Your task to perform on an android device: turn on improve location accuracy Image 0: 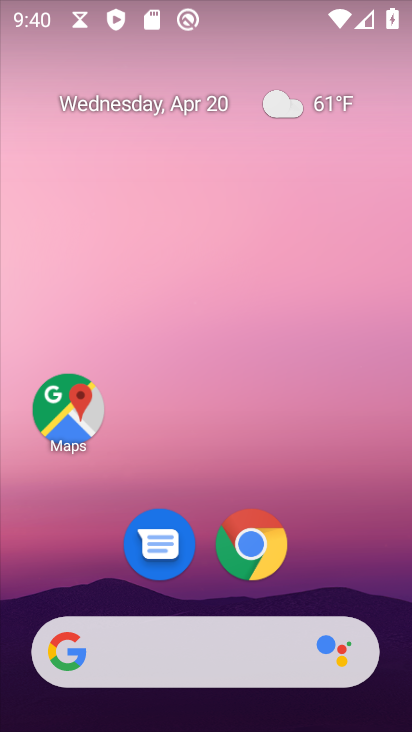
Step 0: drag from (164, 646) to (296, 107)
Your task to perform on an android device: turn on improve location accuracy Image 1: 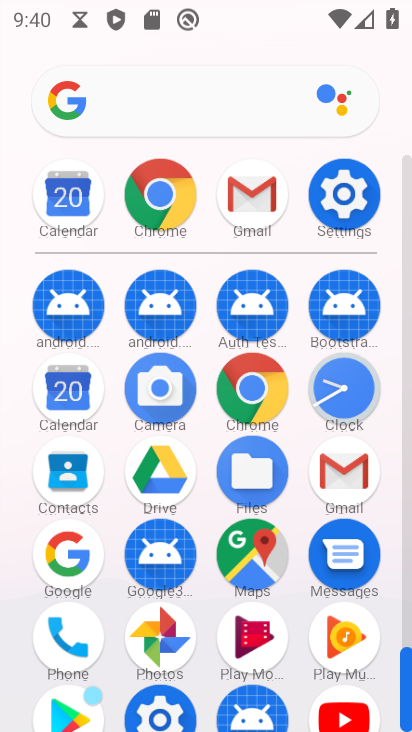
Step 1: click (336, 215)
Your task to perform on an android device: turn on improve location accuracy Image 2: 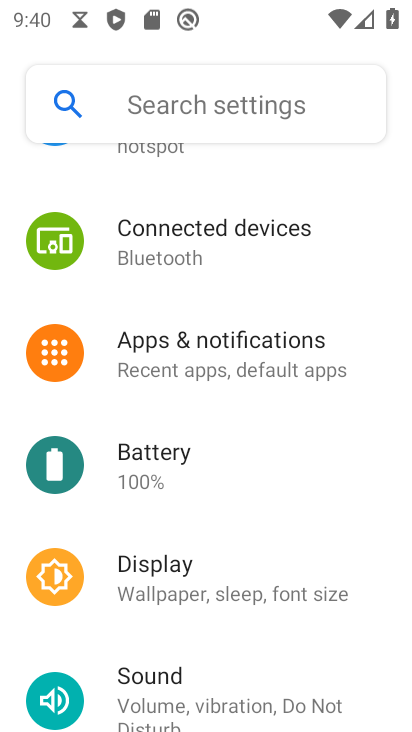
Step 2: drag from (233, 540) to (341, 87)
Your task to perform on an android device: turn on improve location accuracy Image 3: 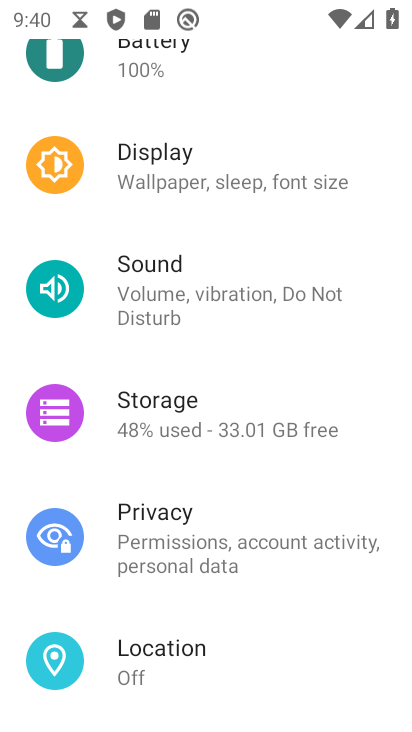
Step 3: click (168, 646)
Your task to perform on an android device: turn on improve location accuracy Image 4: 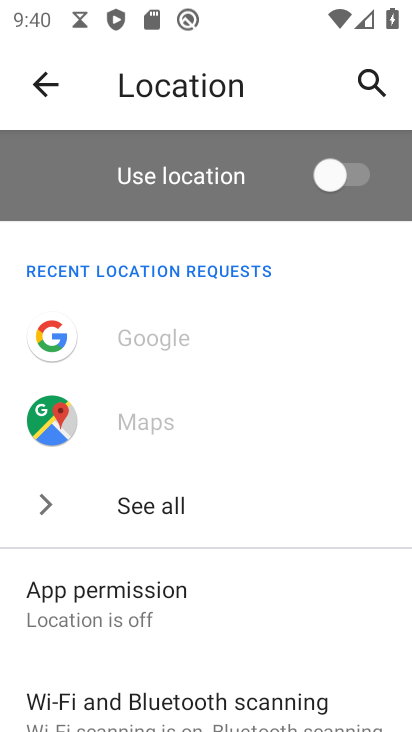
Step 4: drag from (191, 651) to (318, 179)
Your task to perform on an android device: turn on improve location accuracy Image 5: 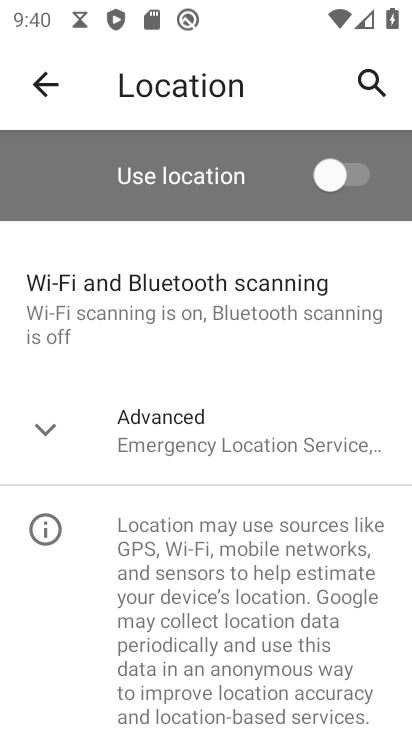
Step 5: click (183, 449)
Your task to perform on an android device: turn on improve location accuracy Image 6: 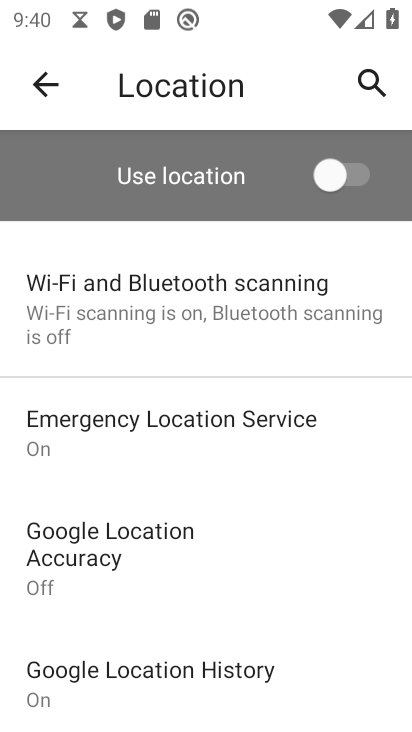
Step 6: click (143, 536)
Your task to perform on an android device: turn on improve location accuracy Image 7: 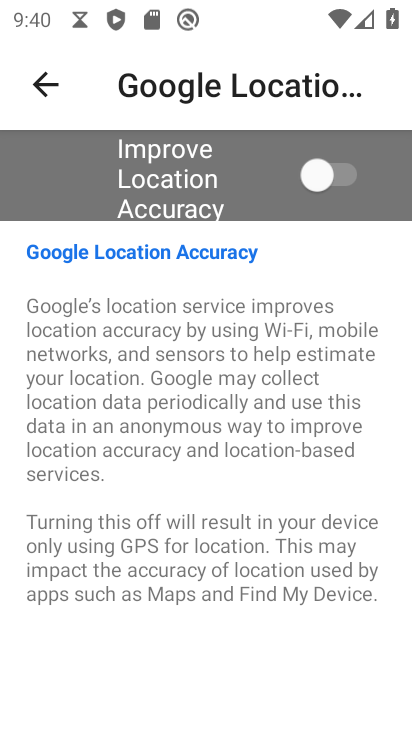
Step 7: click (338, 172)
Your task to perform on an android device: turn on improve location accuracy Image 8: 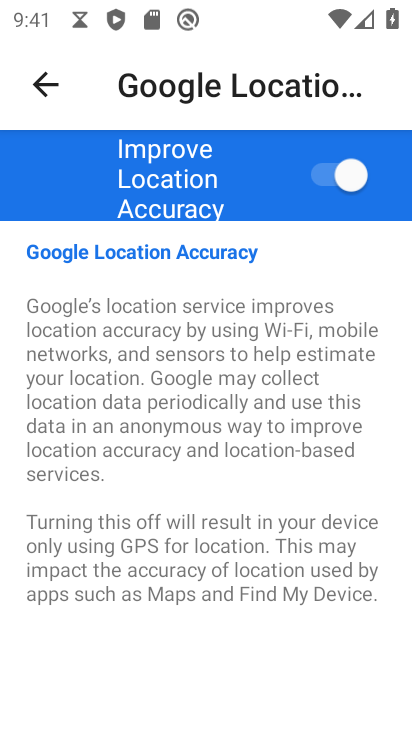
Step 8: task complete